Your task to perform on an android device: Is it going to rain today? Image 0: 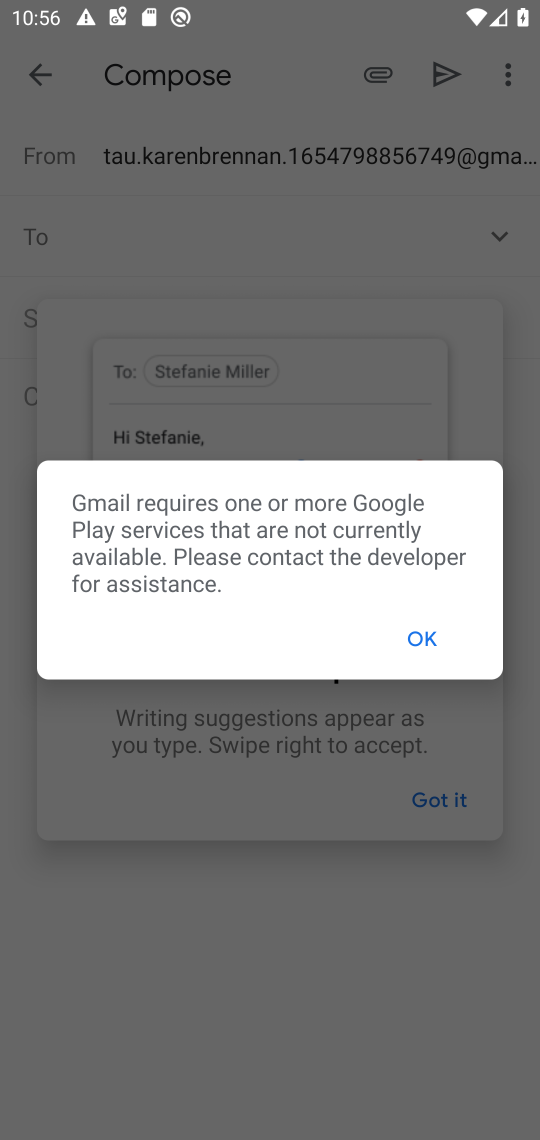
Step 0: press back button
Your task to perform on an android device: Is it going to rain today? Image 1: 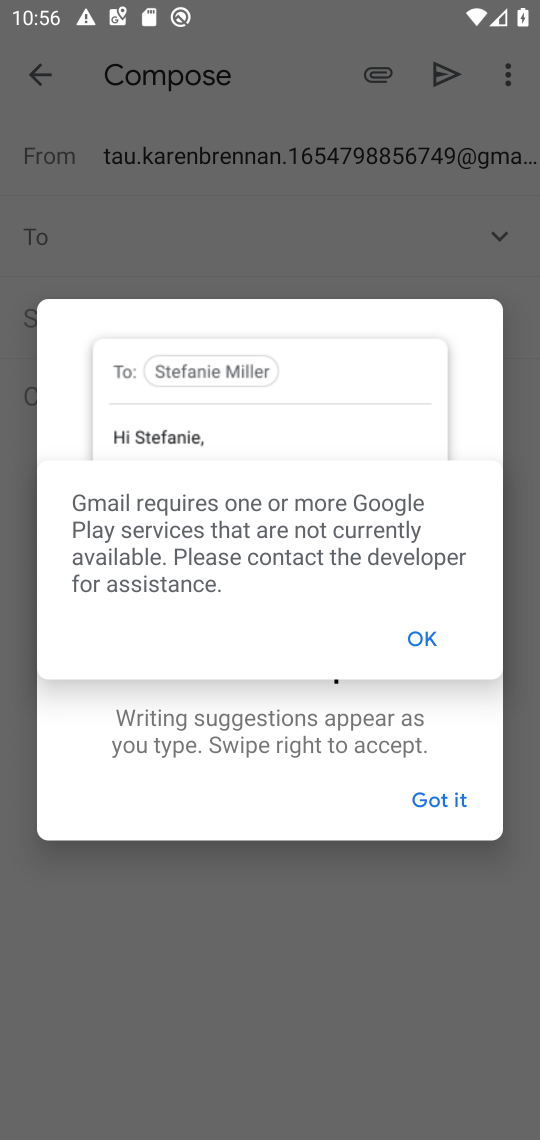
Step 1: press home button
Your task to perform on an android device: Is it going to rain today? Image 2: 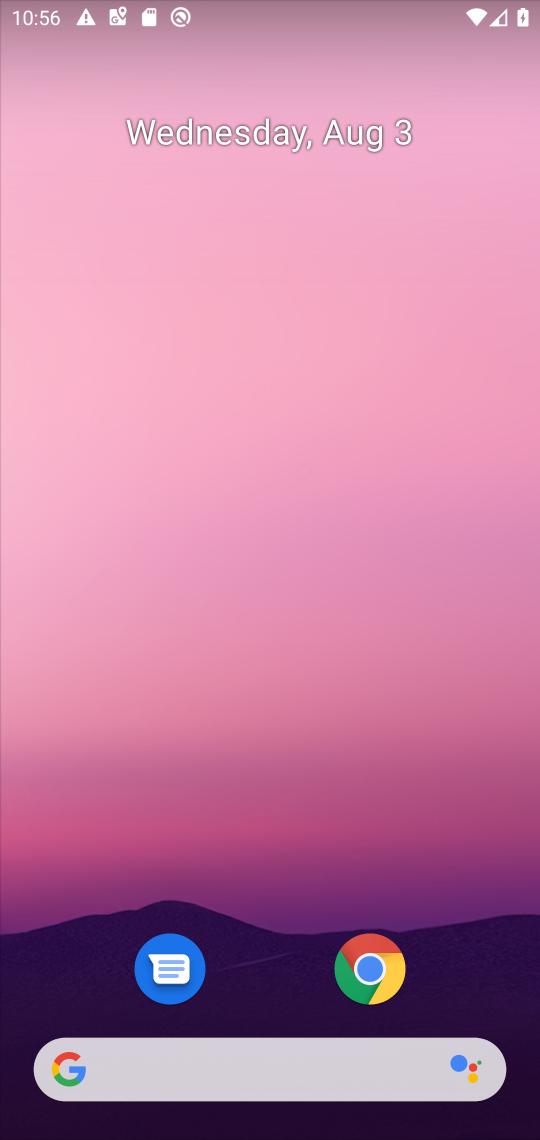
Step 2: drag from (307, 1031) to (139, 44)
Your task to perform on an android device: Is it going to rain today? Image 3: 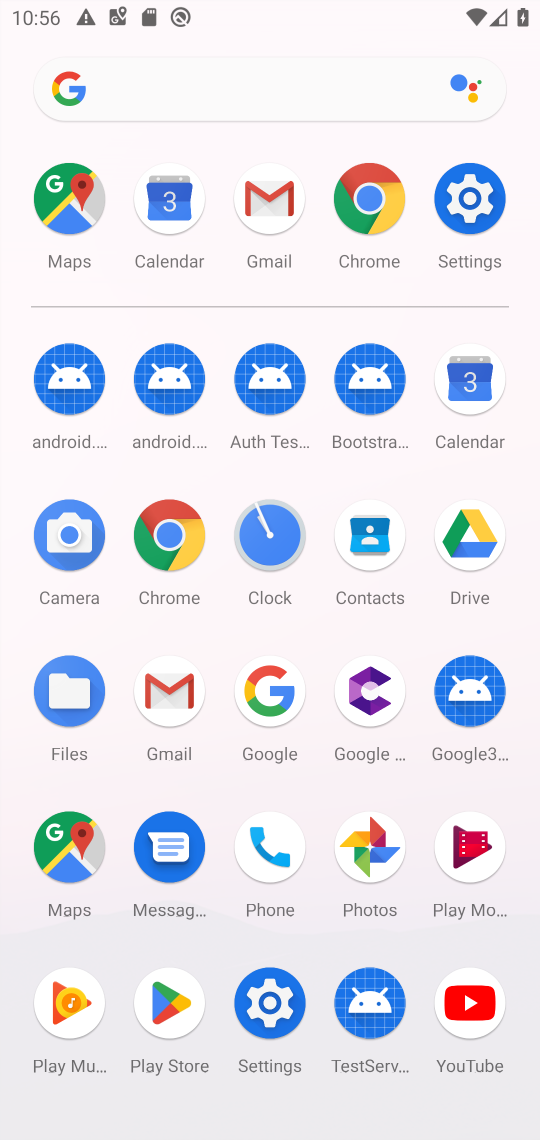
Step 3: click (274, 735)
Your task to perform on an android device: Is it going to rain today? Image 4: 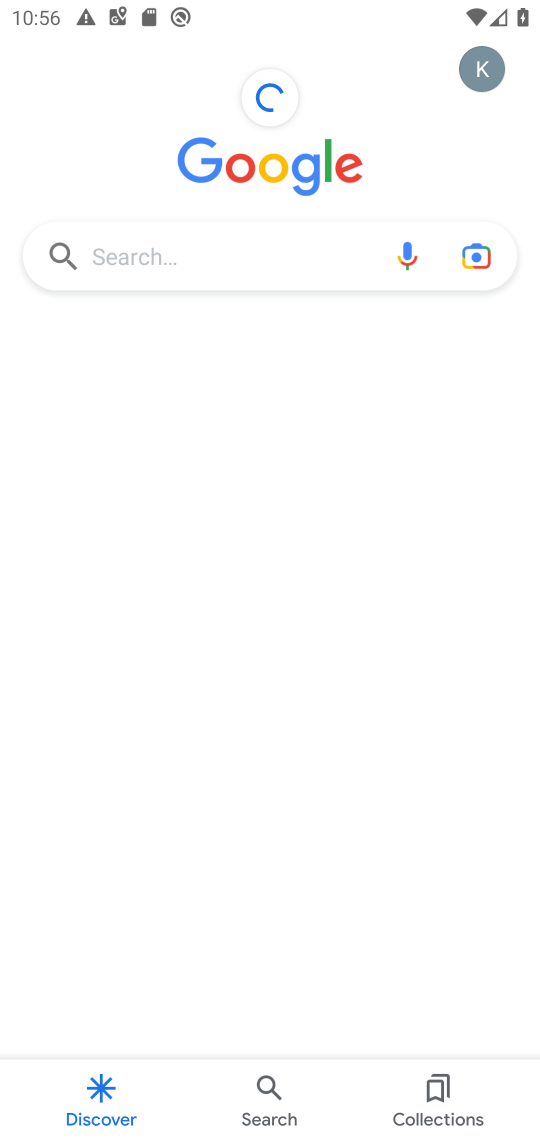
Step 4: click (228, 249)
Your task to perform on an android device: Is it going to rain today? Image 5: 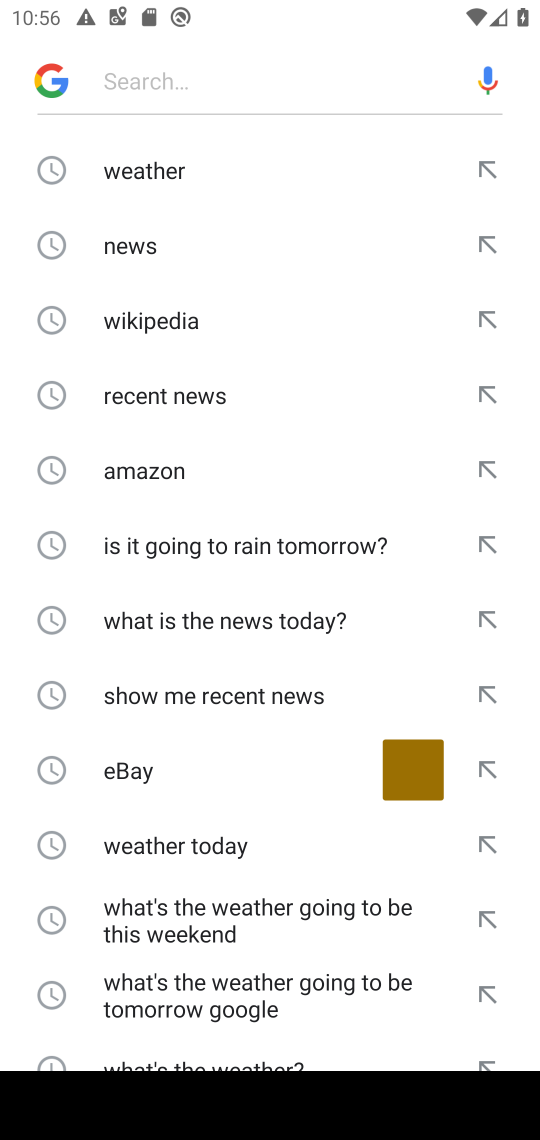
Step 5: click (151, 168)
Your task to perform on an android device: Is it going to rain today? Image 6: 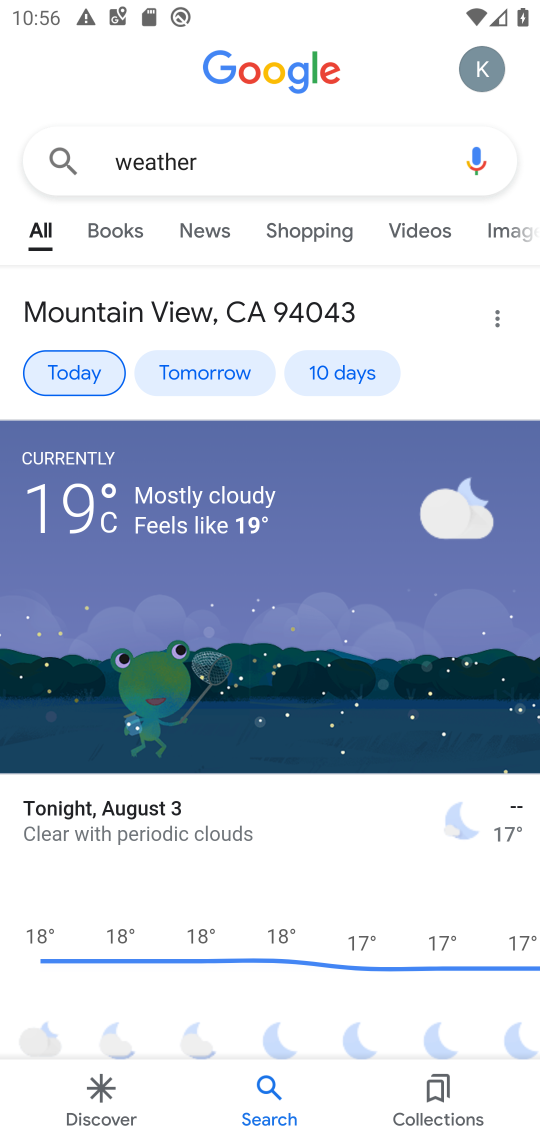
Step 6: click (85, 359)
Your task to perform on an android device: Is it going to rain today? Image 7: 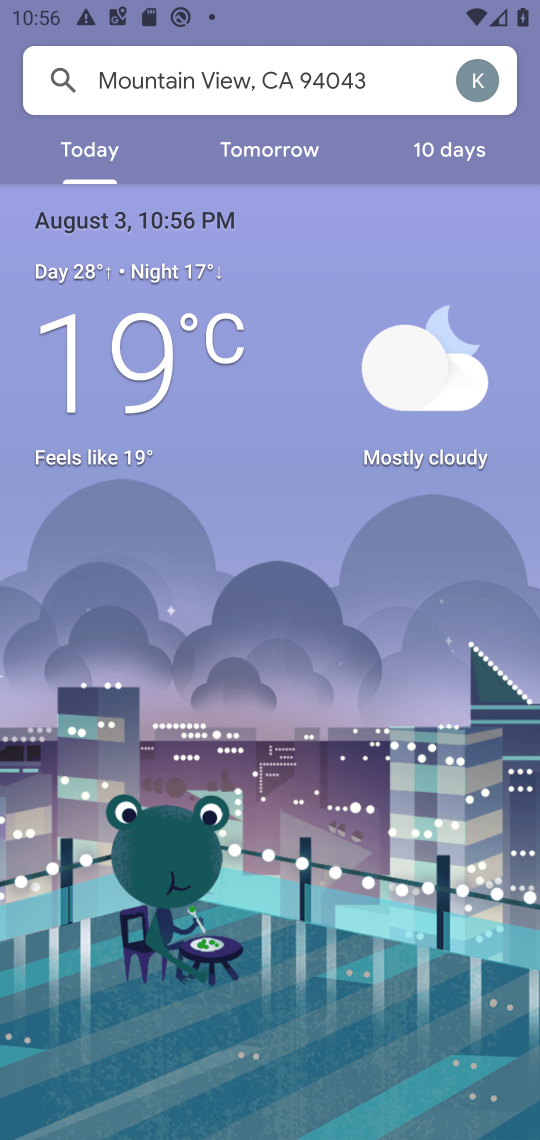
Step 7: task complete